Your task to perform on an android device: Open Youtube and go to the subscriptions tab Image 0: 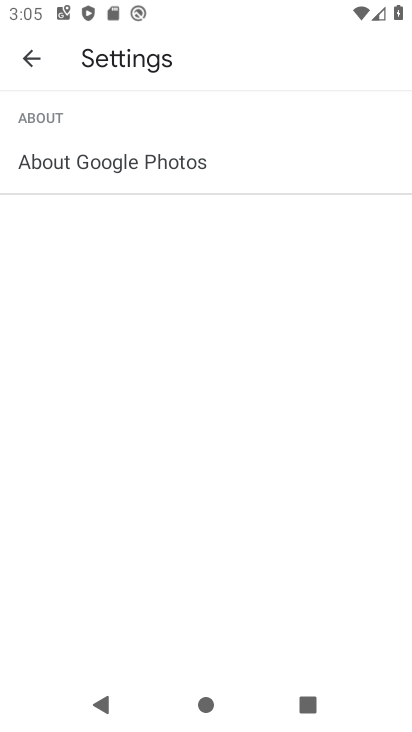
Step 0: press home button
Your task to perform on an android device: Open Youtube and go to the subscriptions tab Image 1: 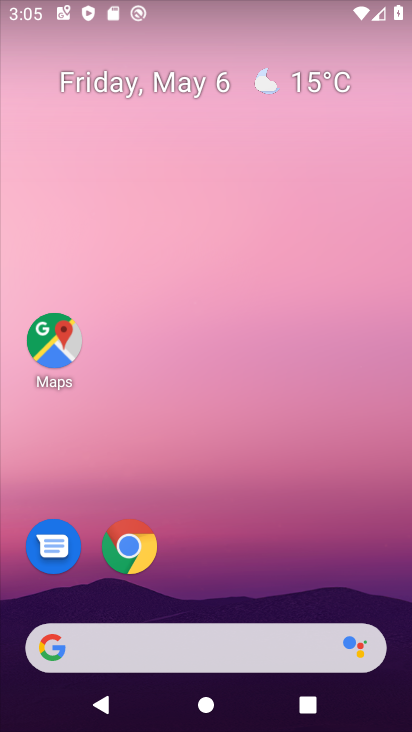
Step 1: drag from (152, 616) to (186, 314)
Your task to perform on an android device: Open Youtube and go to the subscriptions tab Image 2: 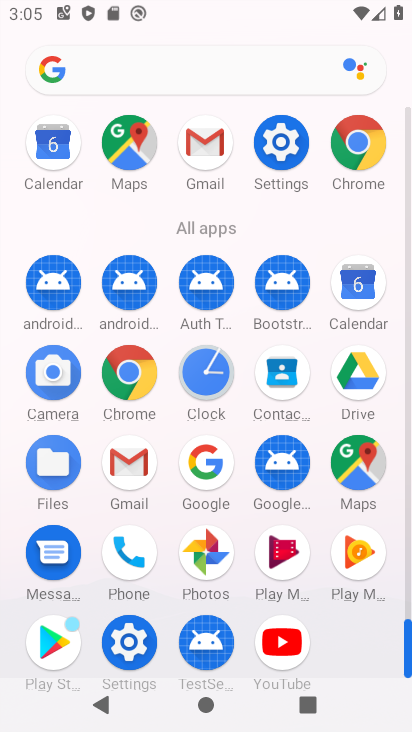
Step 2: click (279, 650)
Your task to perform on an android device: Open Youtube and go to the subscriptions tab Image 3: 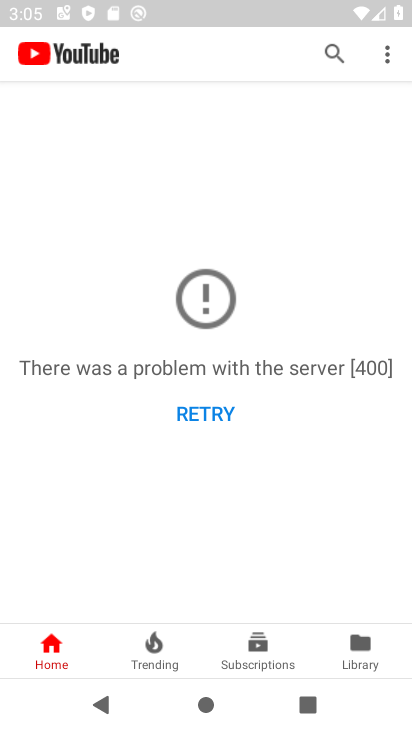
Step 3: click (242, 662)
Your task to perform on an android device: Open Youtube and go to the subscriptions tab Image 4: 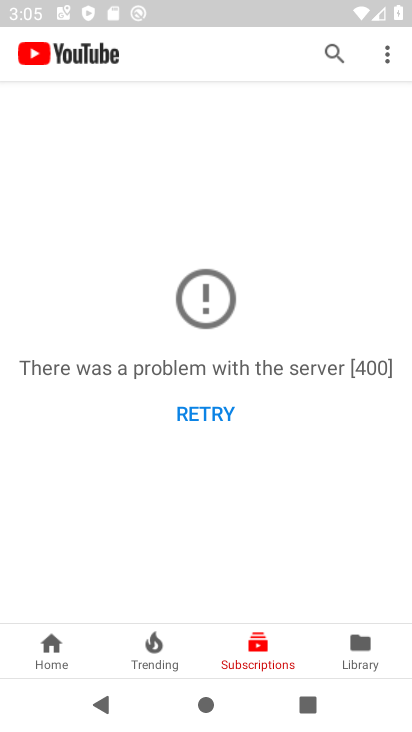
Step 4: task complete